Your task to perform on an android device: refresh tabs in the chrome app Image 0: 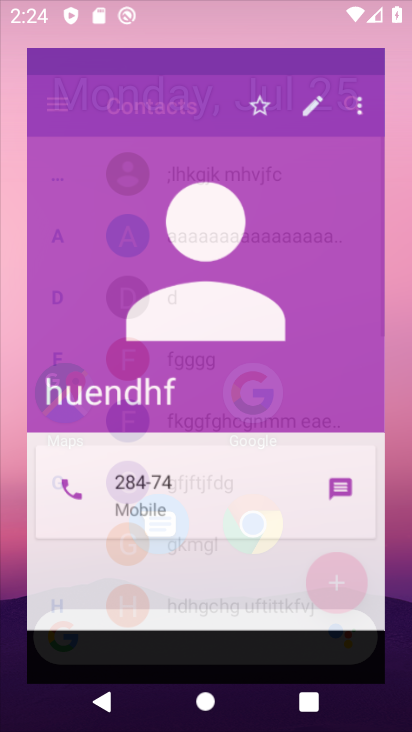
Step 0: press home button
Your task to perform on an android device: refresh tabs in the chrome app Image 1: 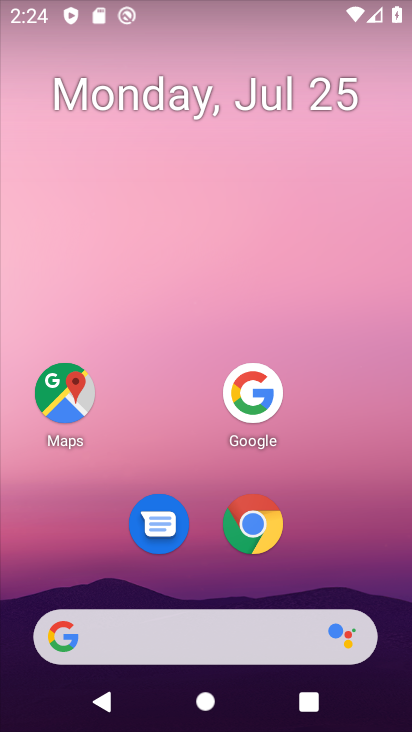
Step 1: click (254, 536)
Your task to perform on an android device: refresh tabs in the chrome app Image 2: 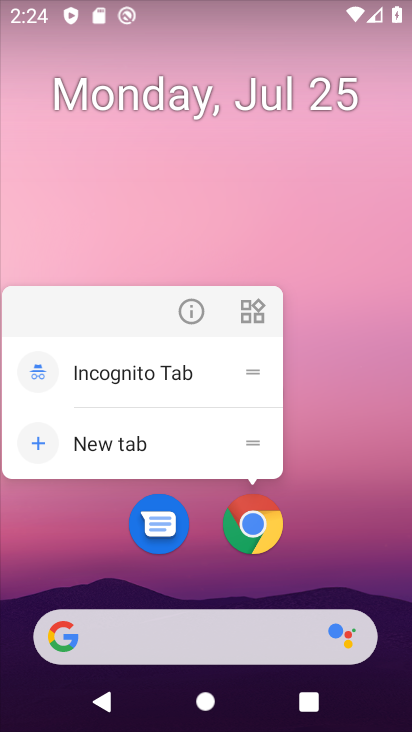
Step 2: click (263, 513)
Your task to perform on an android device: refresh tabs in the chrome app Image 3: 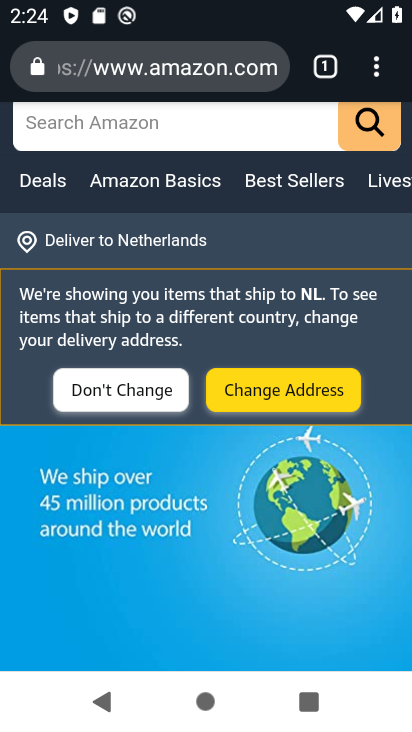
Step 3: click (378, 84)
Your task to perform on an android device: refresh tabs in the chrome app Image 4: 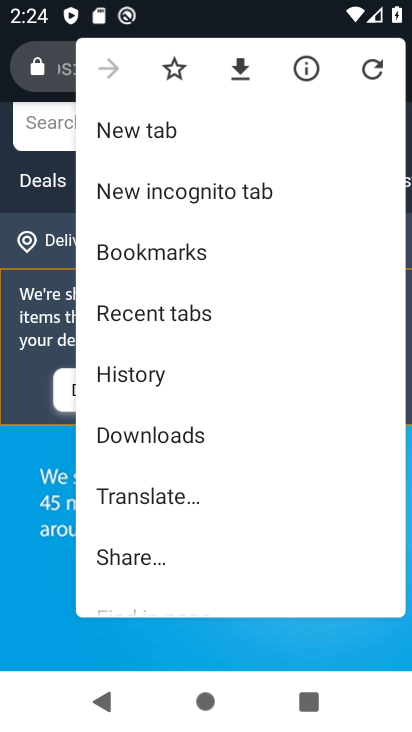
Step 4: click (366, 70)
Your task to perform on an android device: refresh tabs in the chrome app Image 5: 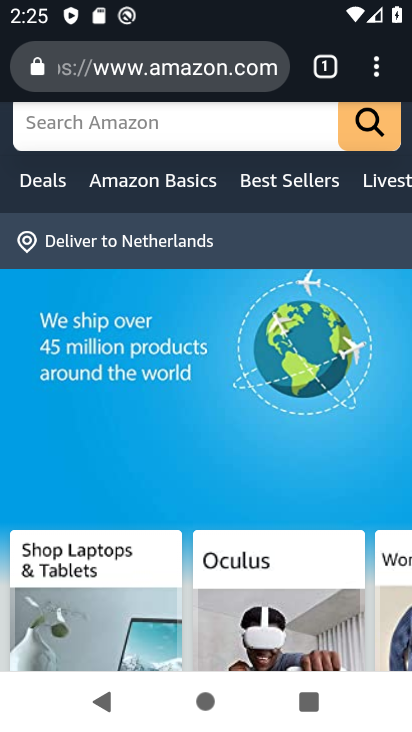
Step 5: task complete